Your task to perform on an android device: Search for pizza restaurants on Maps Image 0: 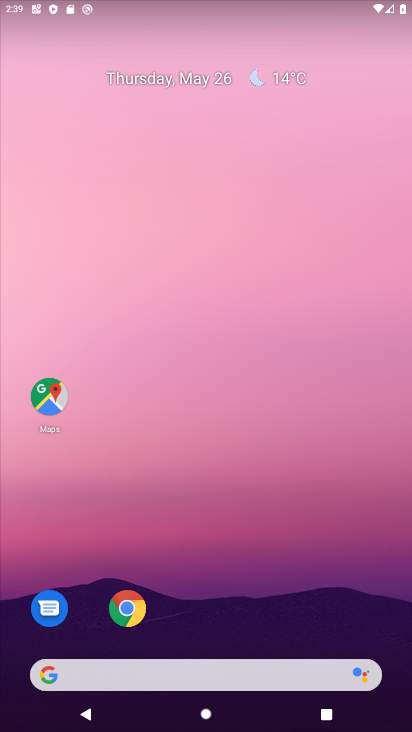
Step 0: drag from (333, 529) to (322, 6)
Your task to perform on an android device: Search for pizza restaurants on Maps Image 1: 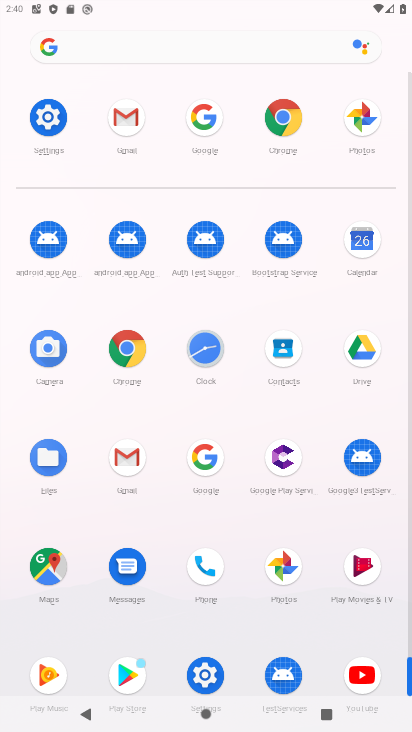
Step 1: click (54, 569)
Your task to perform on an android device: Search for pizza restaurants on Maps Image 2: 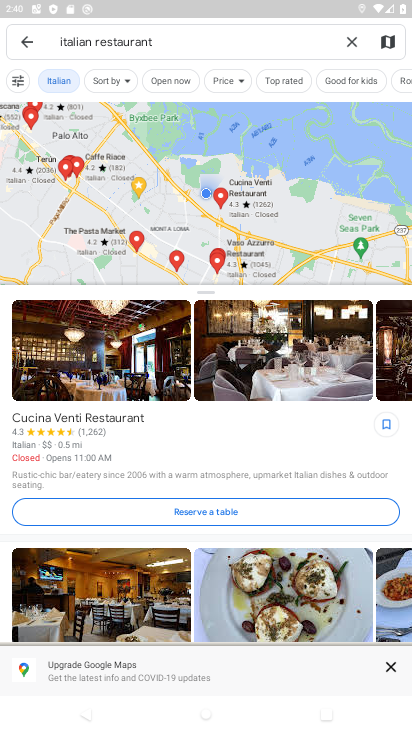
Step 2: click (350, 36)
Your task to perform on an android device: Search for pizza restaurants on Maps Image 3: 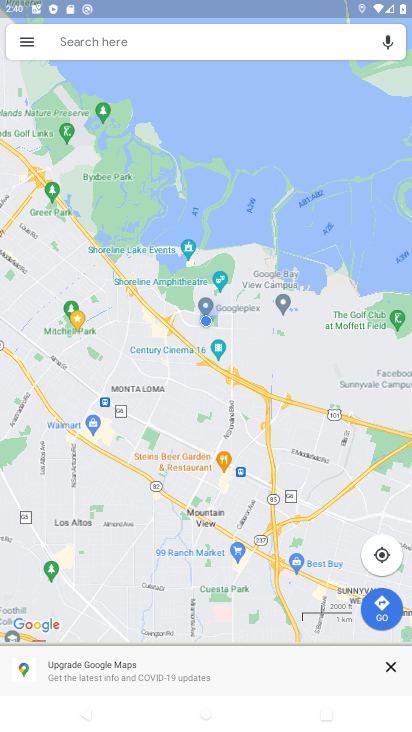
Step 3: click (261, 13)
Your task to perform on an android device: Search for pizza restaurants on Maps Image 4: 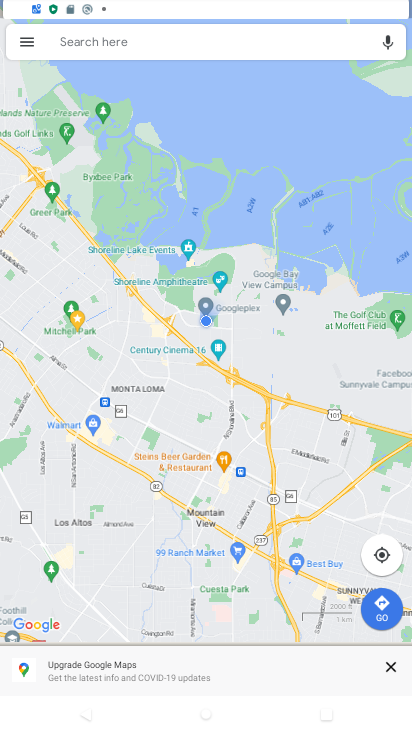
Step 4: click (244, 39)
Your task to perform on an android device: Search for pizza restaurants on Maps Image 5: 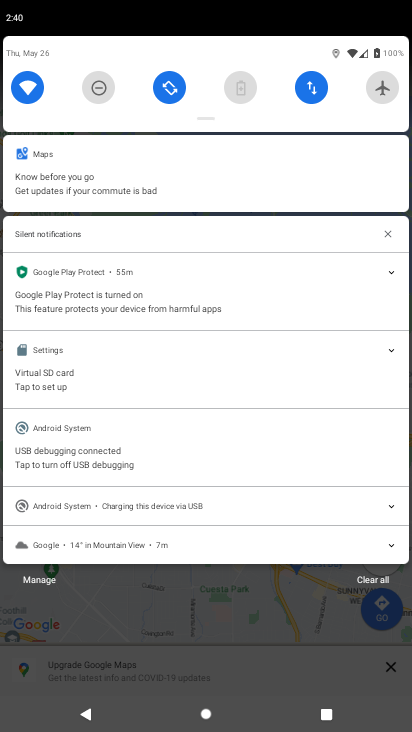
Step 5: drag from (285, 637) to (263, 195)
Your task to perform on an android device: Search for pizza restaurants on Maps Image 6: 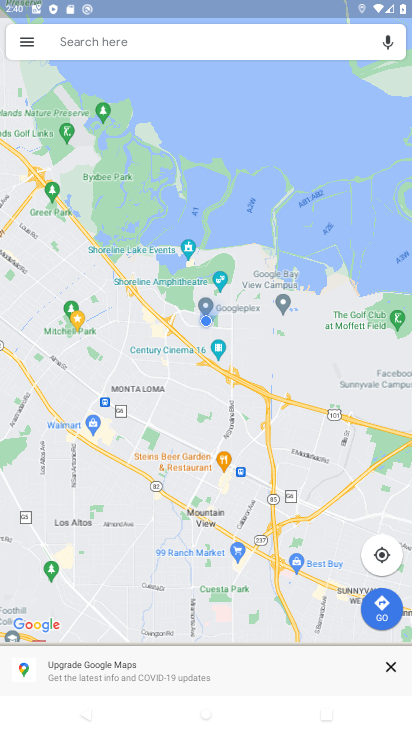
Step 6: click (174, 34)
Your task to perform on an android device: Search for pizza restaurants on Maps Image 7: 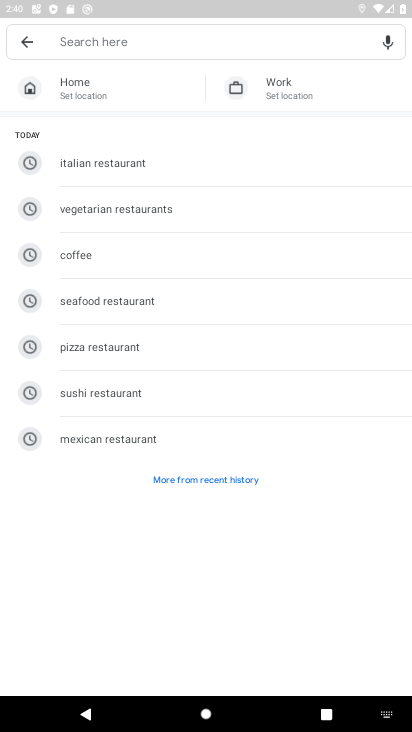
Step 7: click (151, 351)
Your task to perform on an android device: Search for pizza restaurants on Maps Image 8: 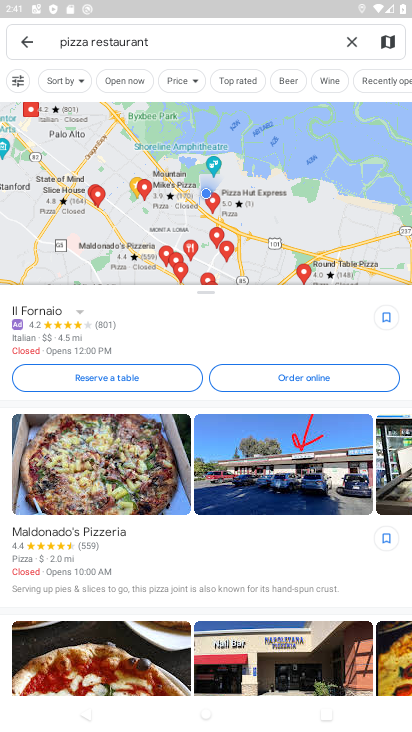
Step 8: task complete